Your task to perform on an android device: visit the assistant section in the google photos Image 0: 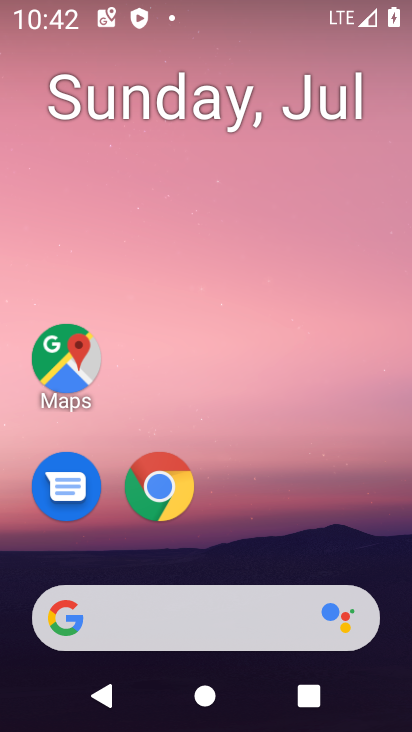
Step 0: drag from (348, 516) to (358, 149)
Your task to perform on an android device: visit the assistant section in the google photos Image 1: 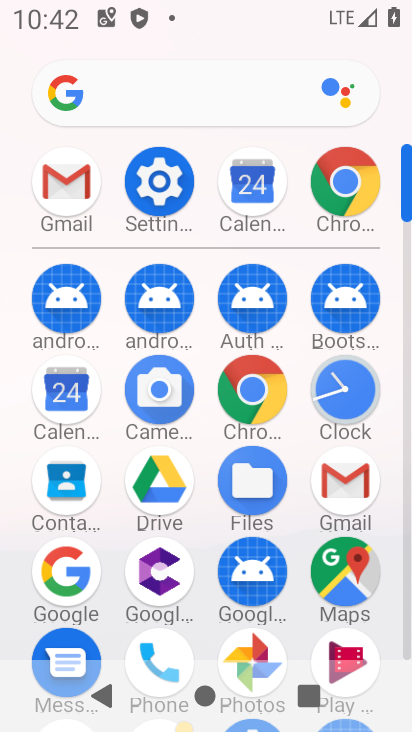
Step 1: drag from (392, 467) to (392, 193)
Your task to perform on an android device: visit the assistant section in the google photos Image 2: 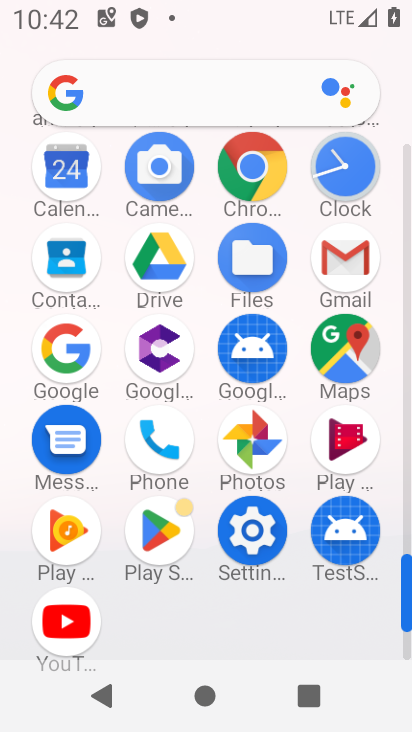
Step 2: click (244, 456)
Your task to perform on an android device: visit the assistant section in the google photos Image 3: 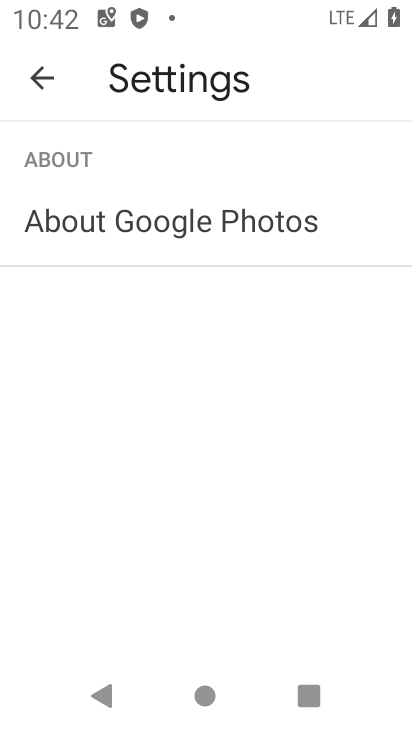
Step 3: task complete